Your task to perform on an android device: turn off improve location accuracy Image 0: 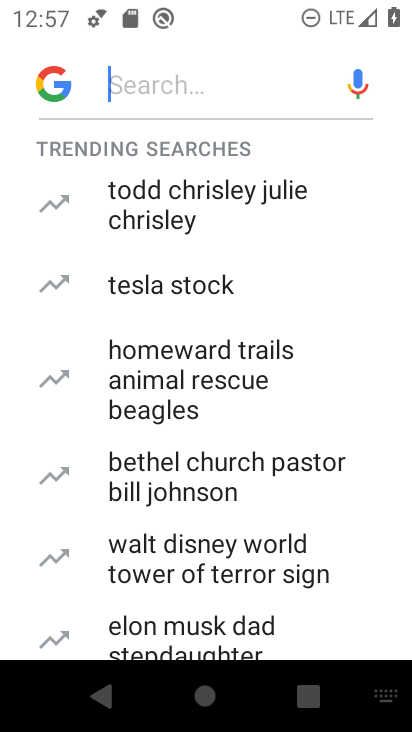
Step 0: press home button
Your task to perform on an android device: turn off improve location accuracy Image 1: 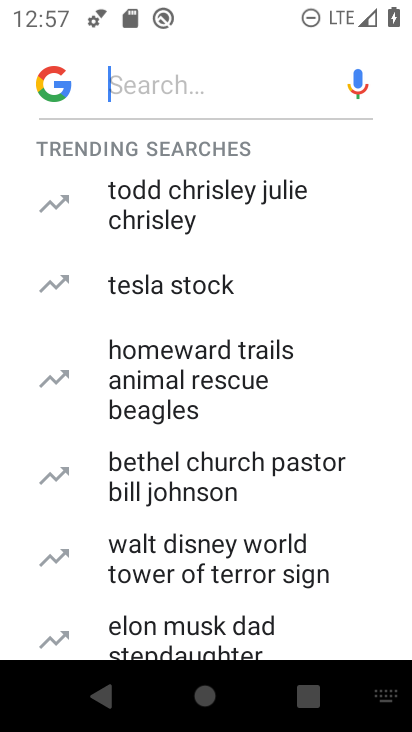
Step 1: type "imp"
Your task to perform on an android device: turn off improve location accuracy Image 2: 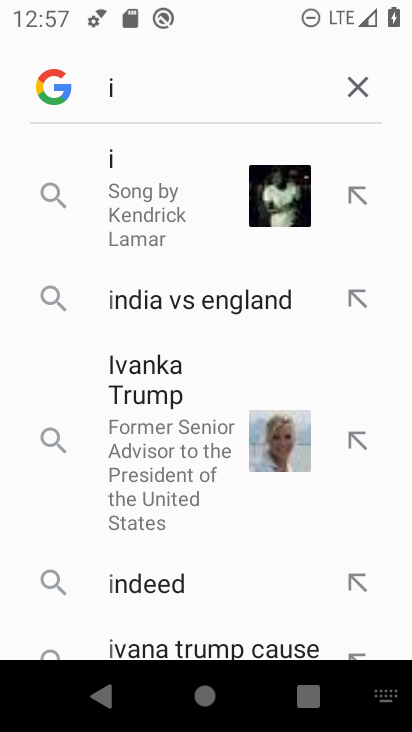
Step 2: click (365, 95)
Your task to perform on an android device: turn off improve location accuracy Image 3: 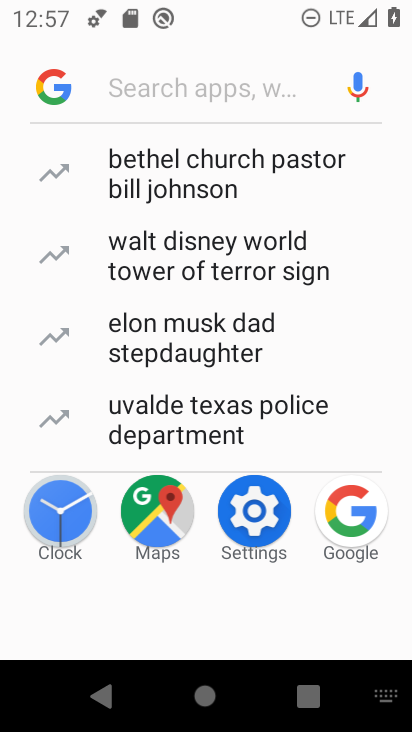
Step 3: press home button
Your task to perform on an android device: turn off improve location accuracy Image 4: 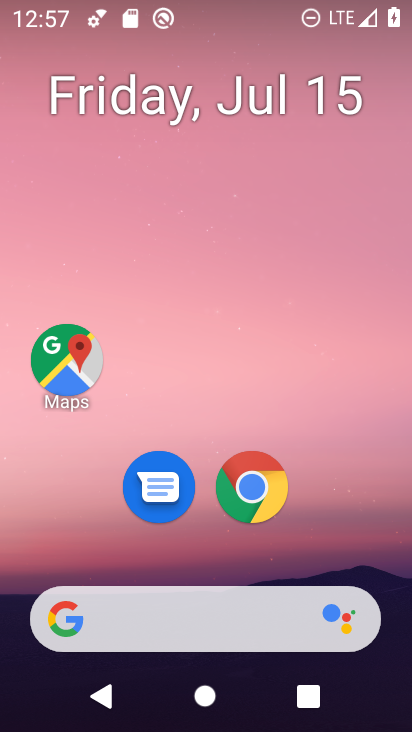
Step 4: drag from (273, 538) to (286, 134)
Your task to perform on an android device: turn off improve location accuracy Image 5: 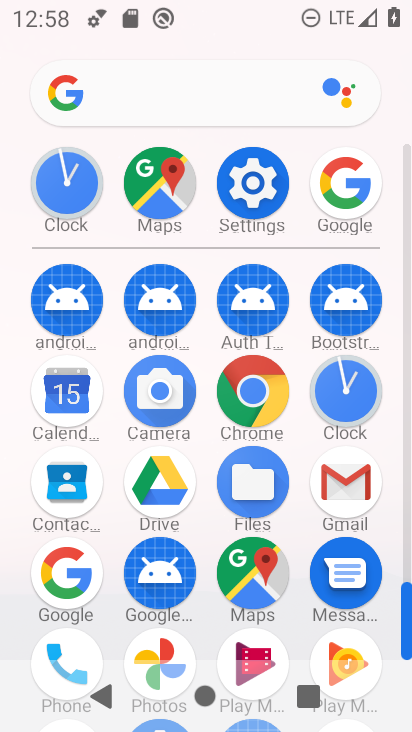
Step 5: click (242, 194)
Your task to perform on an android device: turn off improve location accuracy Image 6: 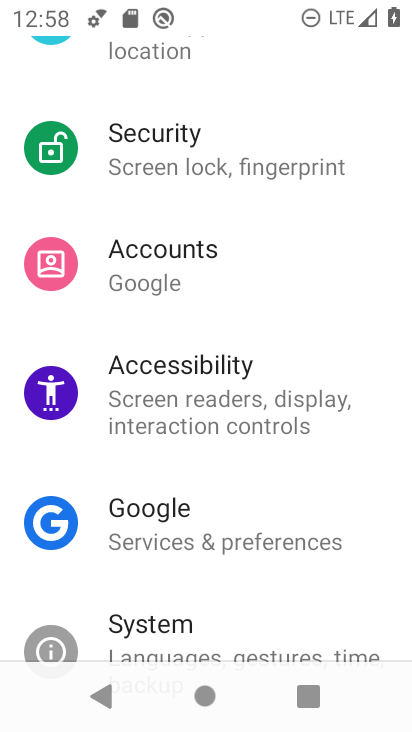
Step 6: drag from (242, 229) to (218, 589)
Your task to perform on an android device: turn off improve location accuracy Image 7: 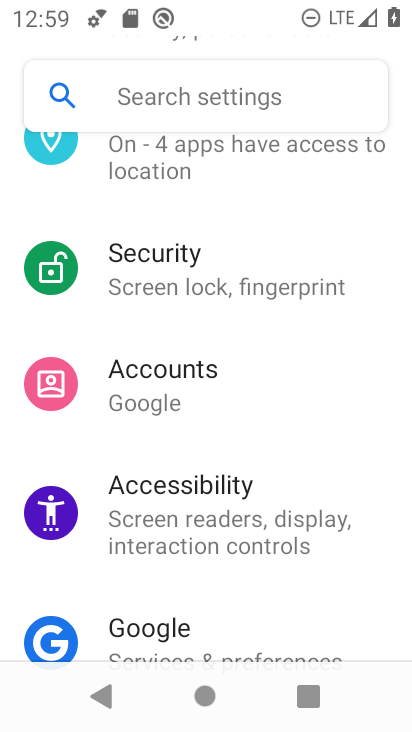
Step 7: drag from (226, 298) to (246, 653)
Your task to perform on an android device: turn off improve location accuracy Image 8: 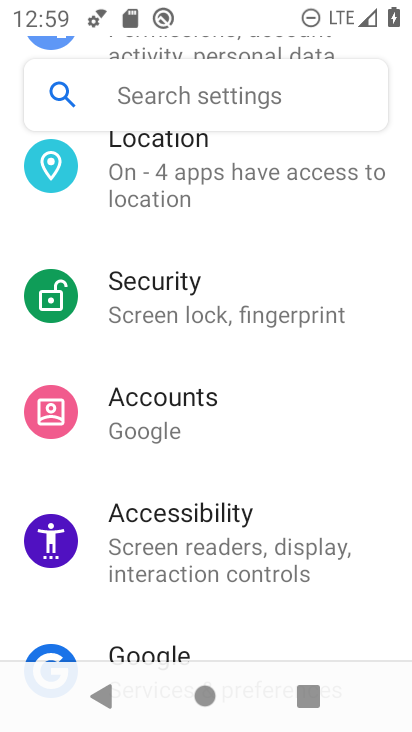
Step 8: click (246, 214)
Your task to perform on an android device: turn off improve location accuracy Image 9: 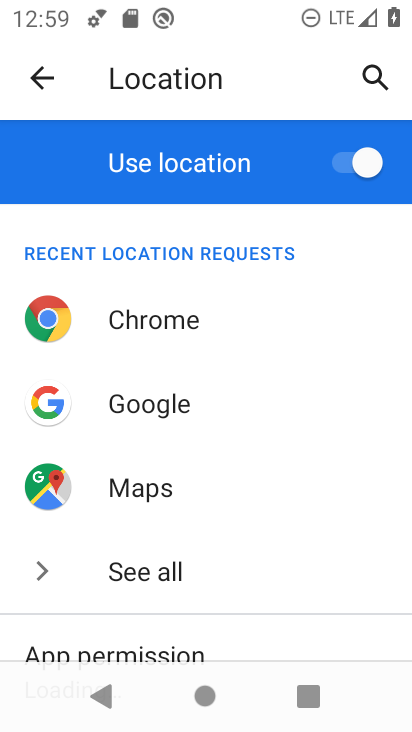
Step 9: drag from (221, 519) to (279, 125)
Your task to perform on an android device: turn off improve location accuracy Image 10: 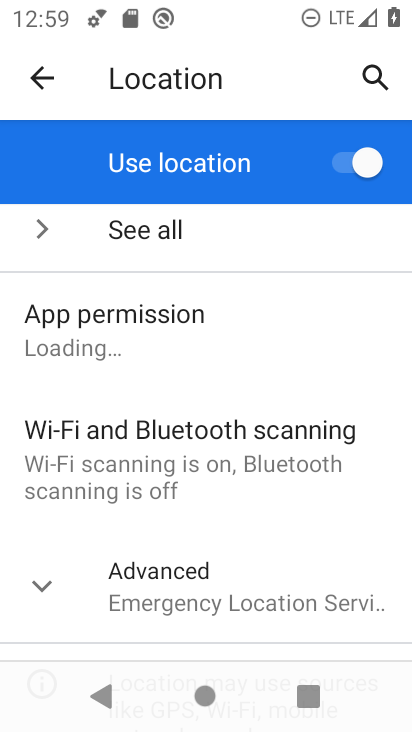
Step 10: click (207, 589)
Your task to perform on an android device: turn off improve location accuracy Image 11: 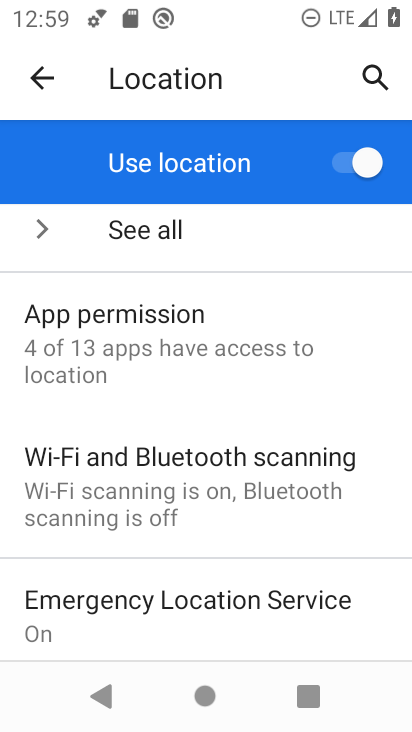
Step 11: drag from (207, 589) to (199, 313)
Your task to perform on an android device: turn off improve location accuracy Image 12: 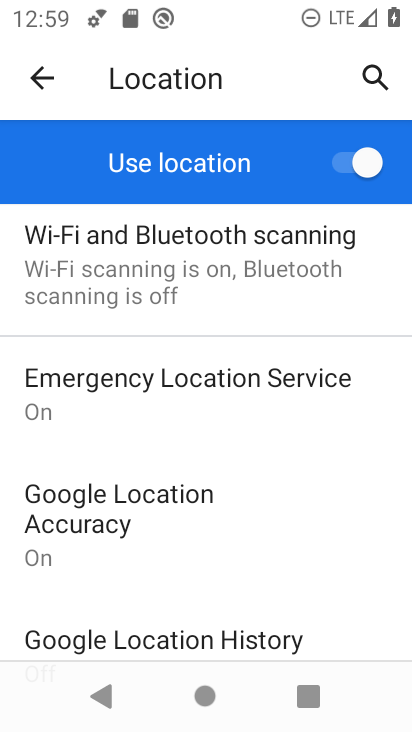
Step 12: click (152, 527)
Your task to perform on an android device: turn off improve location accuracy Image 13: 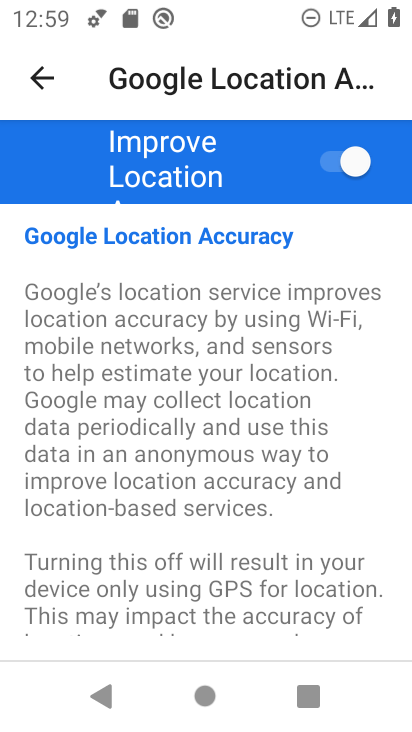
Step 13: click (336, 153)
Your task to perform on an android device: turn off improve location accuracy Image 14: 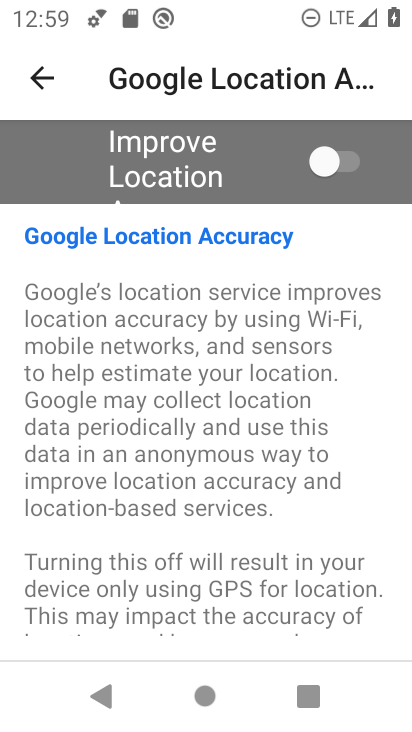
Step 14: task complete